Your task to perform on an android device: Go to battery settings Image 0: 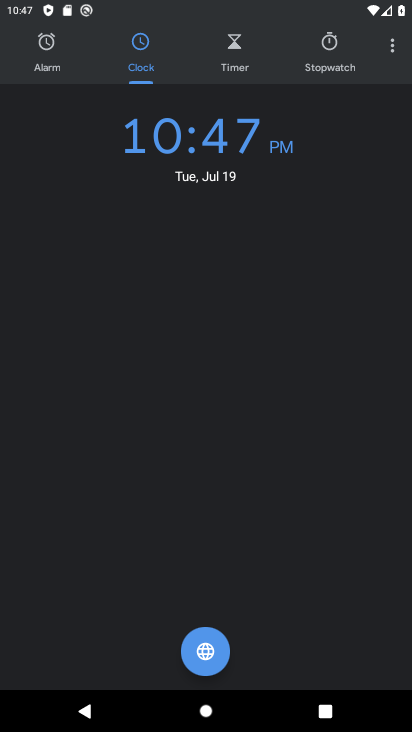
Step 0: press home button
Your task to perform on an android device: Go to battery settings Image 1: 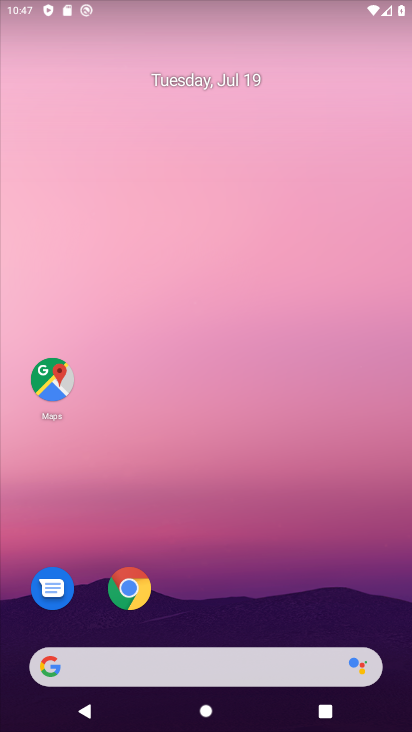
Step 1: drag from (345, 494) to (291, 10)
Your task to perform on an android device: Go to battery settings Image 2: 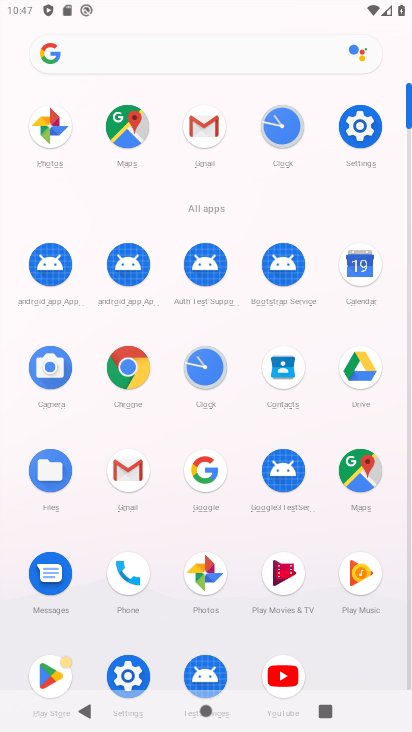
Step 2: click (378, 127)
Your task to perform on an android device: Go to battery settings Image 3: 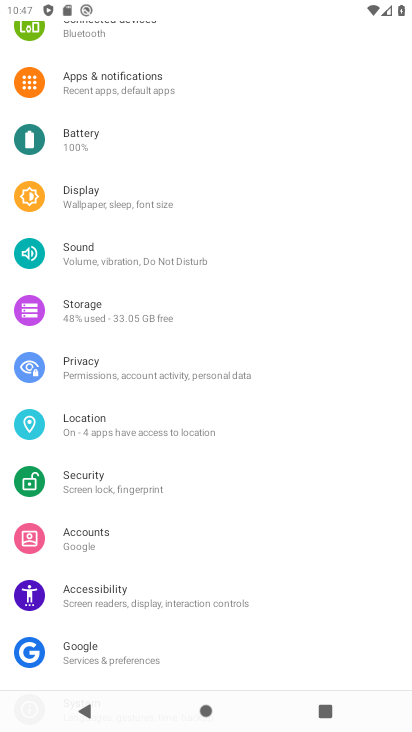
Step 3: click (71, 142)
Your task to perform on an android device: Go to battery settings Image 4: 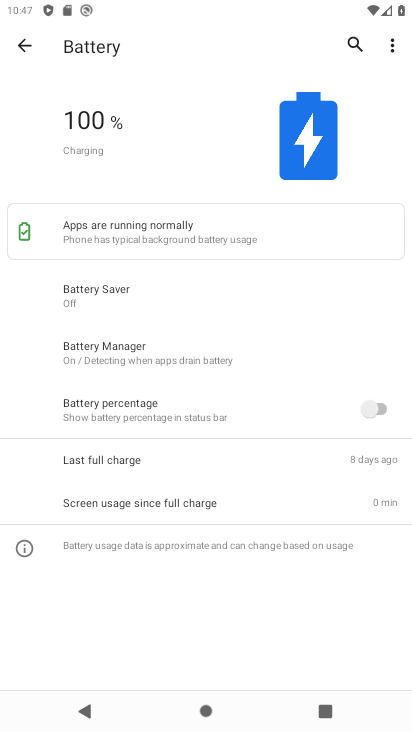
Step 4: task complete